Your task to perform on an android device: turn off picture-in-picture Image 0: 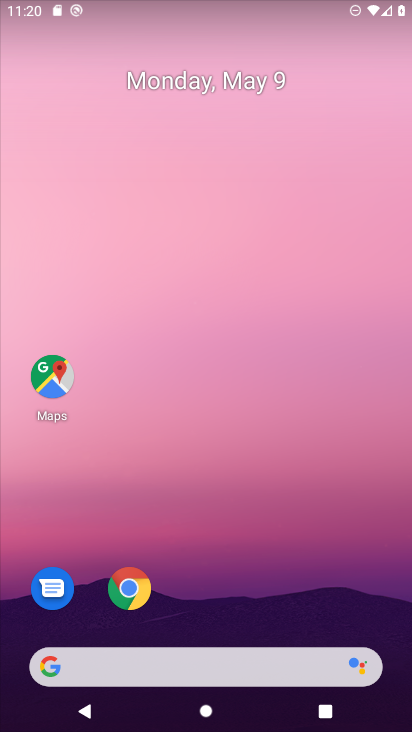
Step 0: drag from (276, 615) to (138, 19)
Your task to perform on an android device: turn off picture-in-picture Image 1: 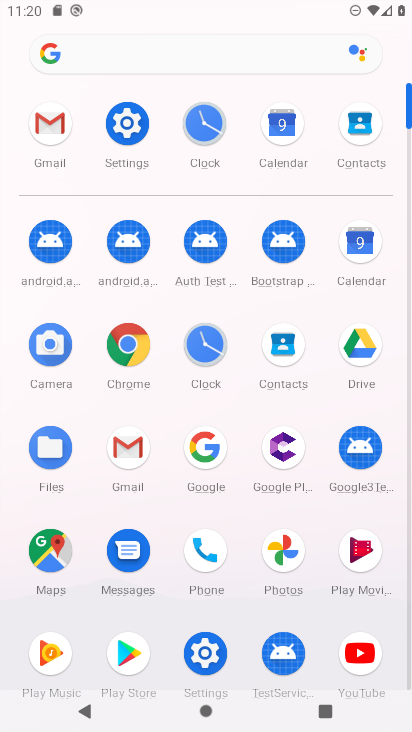
Step 1: click (119, 233)
Your task to perform on an android device: turn off picture-in-picture Image 2: 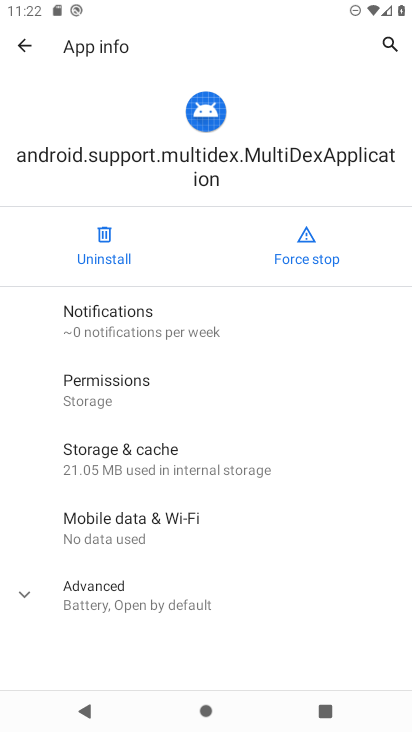
Step 2: click (24, 41)
Your task to perform on an android device: turn off picture-in-picture Image 3: 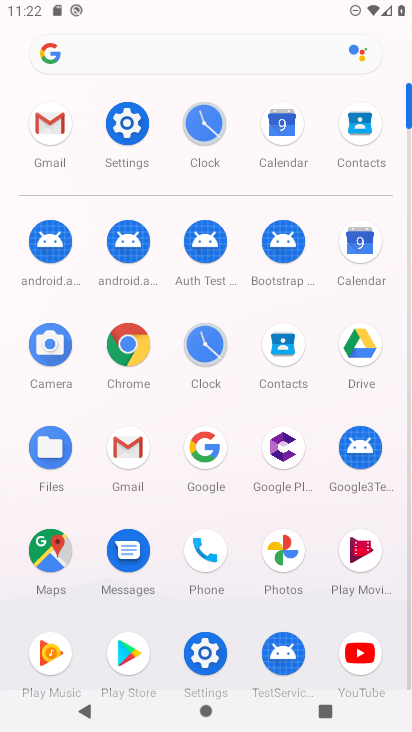
Step 3: click (122, 138)
Your task to perform on an android device: turn off picture-in-picture Image 4: 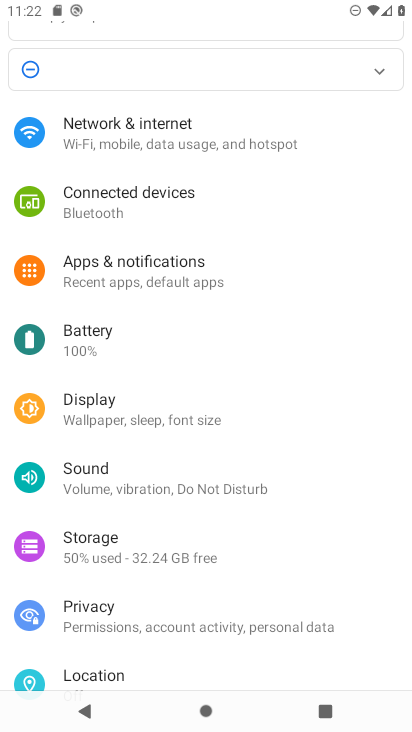
Step 4: click (194, 288)
Your task to perform on an android device: turn off picture-in-picture Image 5: 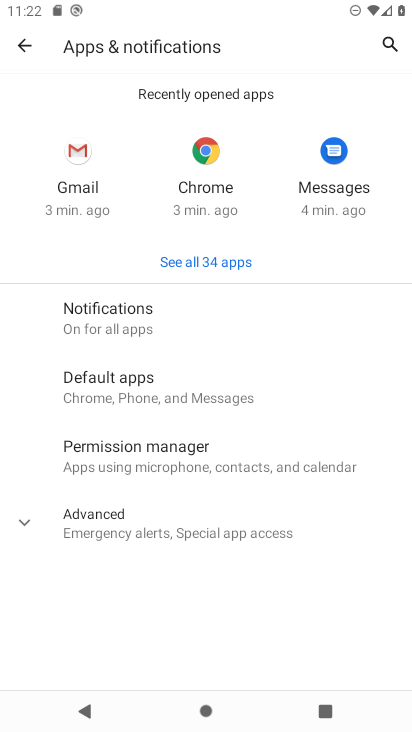
Step 5: click (139, 311)
Your task to perform on an android device: turn off picture-in-picture Image 6: 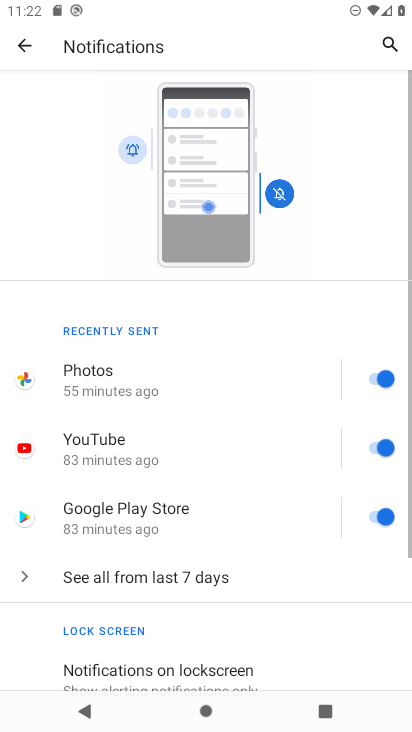
Step 6: drag from (255, 585) to (190, 207)
Your task to perform on an android device: turn off picture-in-picture Image 7: 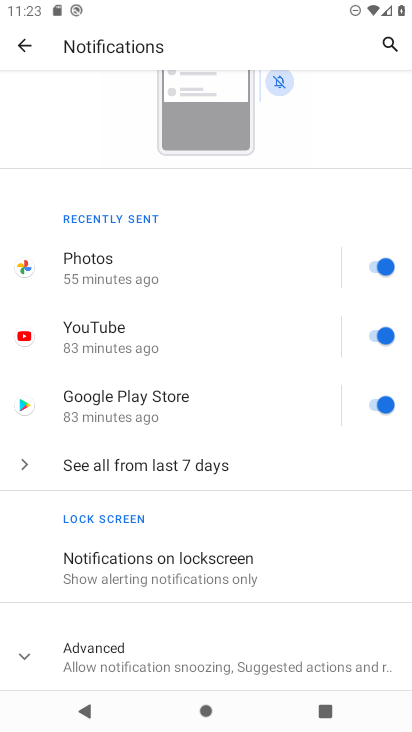
Step 7: click (182, 624)
Your task to perform on an android device: turn off picture-in-picture Image 8: 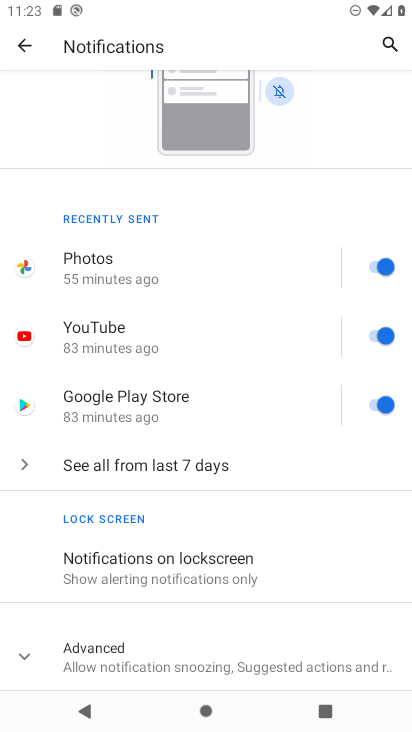
Step 8: drag from (252, 615) to (195, 143)
Your task to perform on an android device: turn off picture-in-picture Image 9: 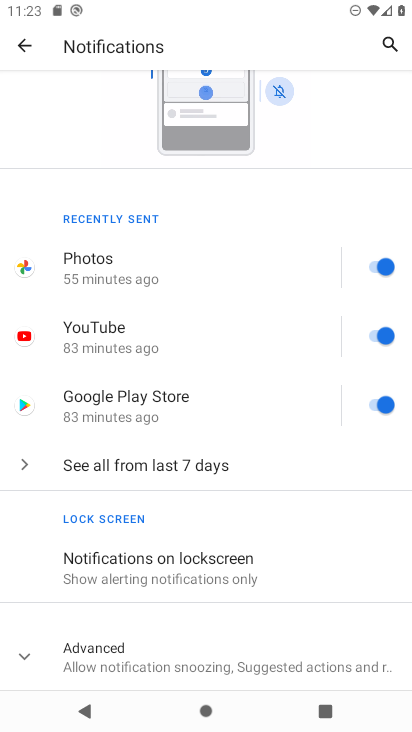
Step 9: click (119, 633)
Your task to perform on an android device: turn off picture-in-picture Image 10: 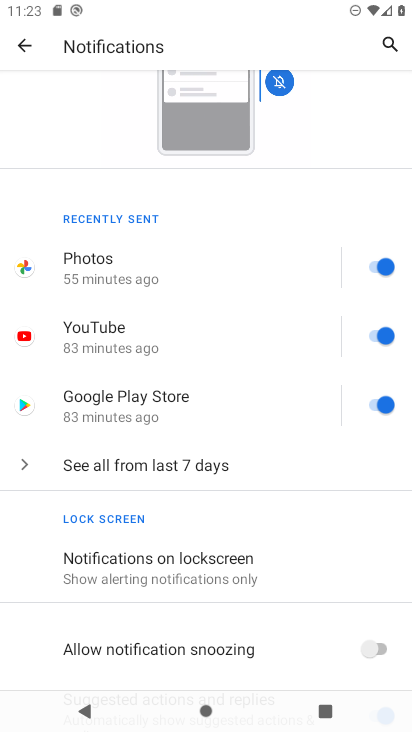
Step 10: drag from (166, 596) to (178, 303)
Your task to perform on an android device: turn off picture-in-picture Image 11: 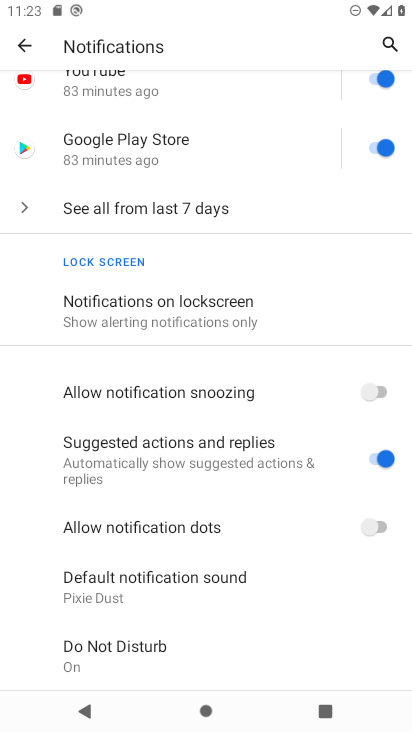
Step 11: drag from (179, 630) to (171, 200)
Your task to perform on an android device: turn off picture-in-picture Image 12: 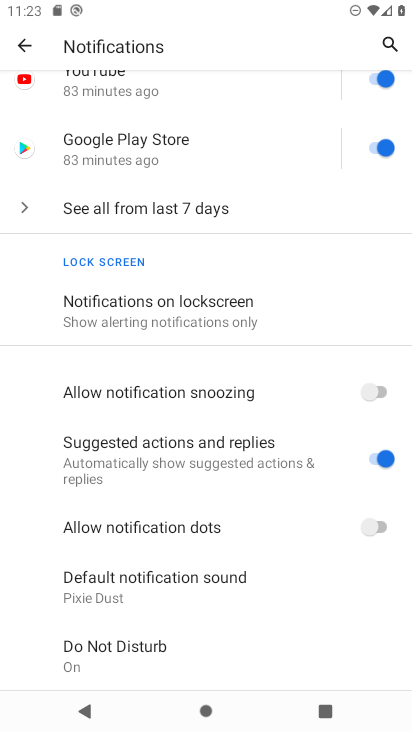
Step 12: click (97, 215)
Your task to perform on an android device: turn off picture-in-picture Image 13: 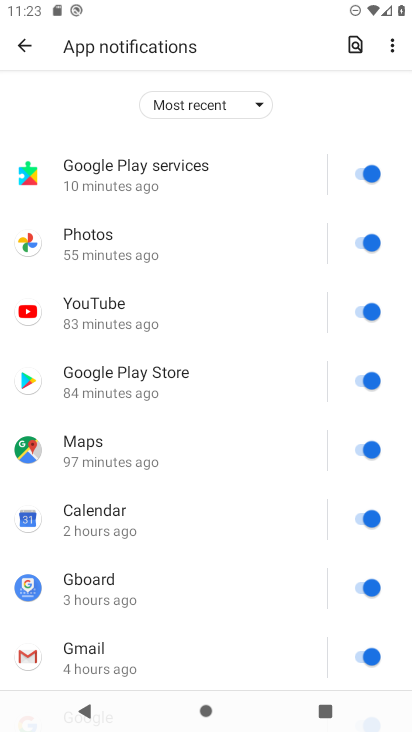
Step 13: task complete